Your task to perform on an android device: turn off wifi Image 0: 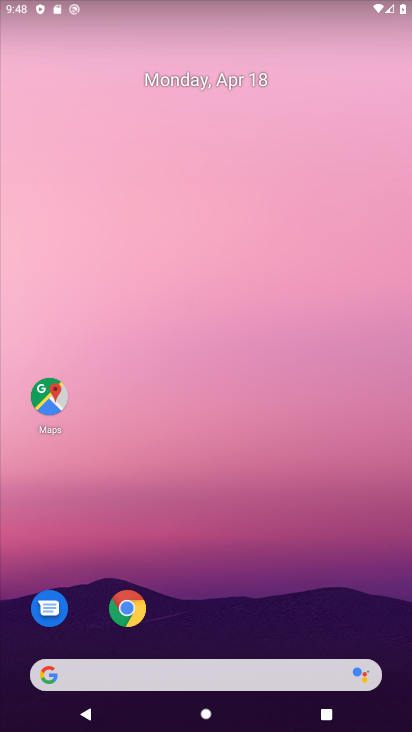
Step 0: drag from (234, 597) to (237, 52)
Your task to perform on an android device: turn off wifi Image 1: 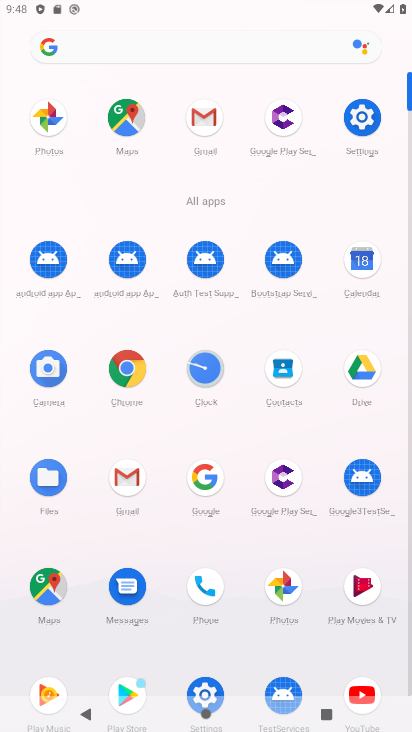
Step 1: click (361, 119)
Your task to perform on an android device: turn off wifi Image 2: 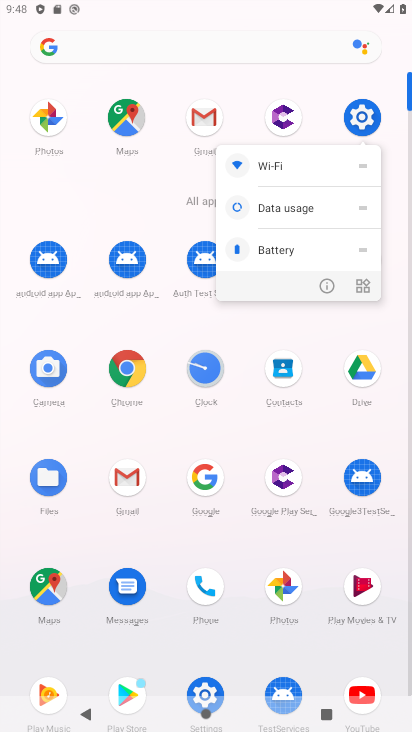
Step 2: click (362, 117)
Your task to perform on an android device: turn off wifi Image 3: 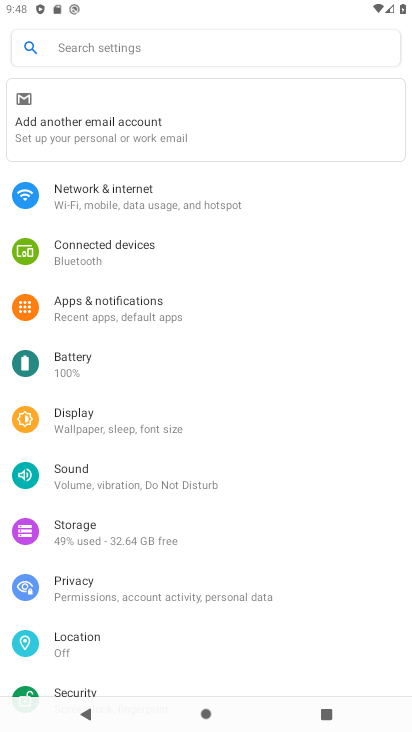
Step 3: click (187, 200)
Your task to perform on an android device: turn off wifi Image 4: 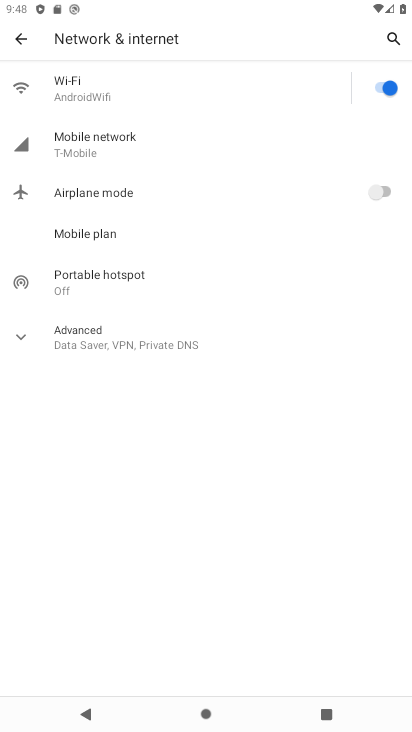
Step 4: click (393, 89)
Your task to perform on an android device: turn off wifi Image 5: 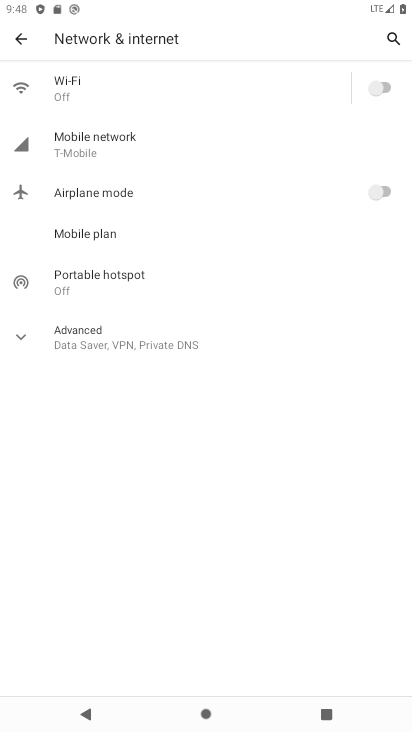
Step 5: task complete